Your task to perform on an android device: see sites visited before in the chrome app Image 0: 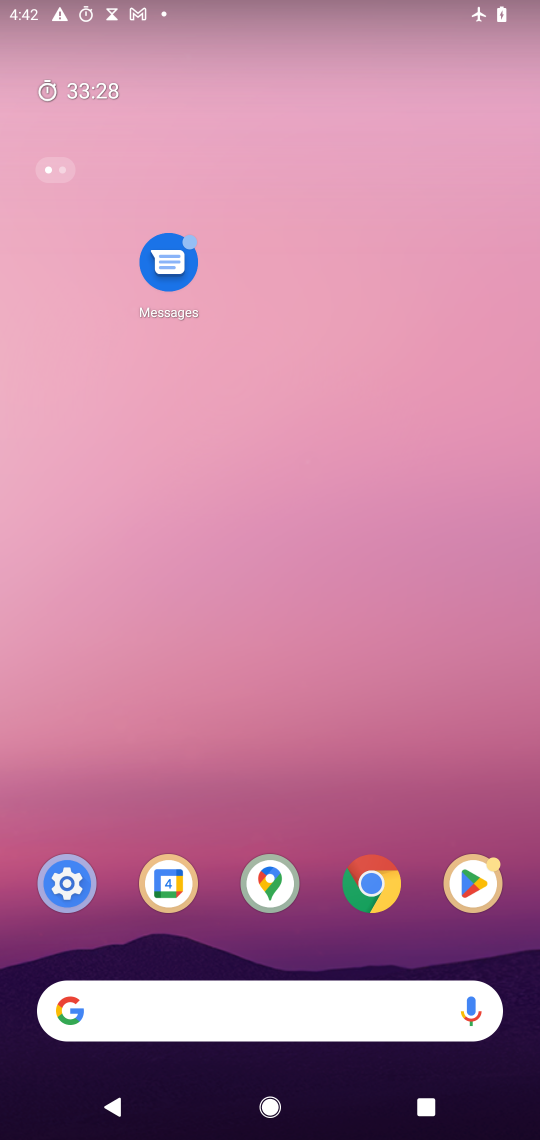
Step 0: click (371, 890)
Your task to perform on an android device: see sites visited before in the chrome app Image 1: 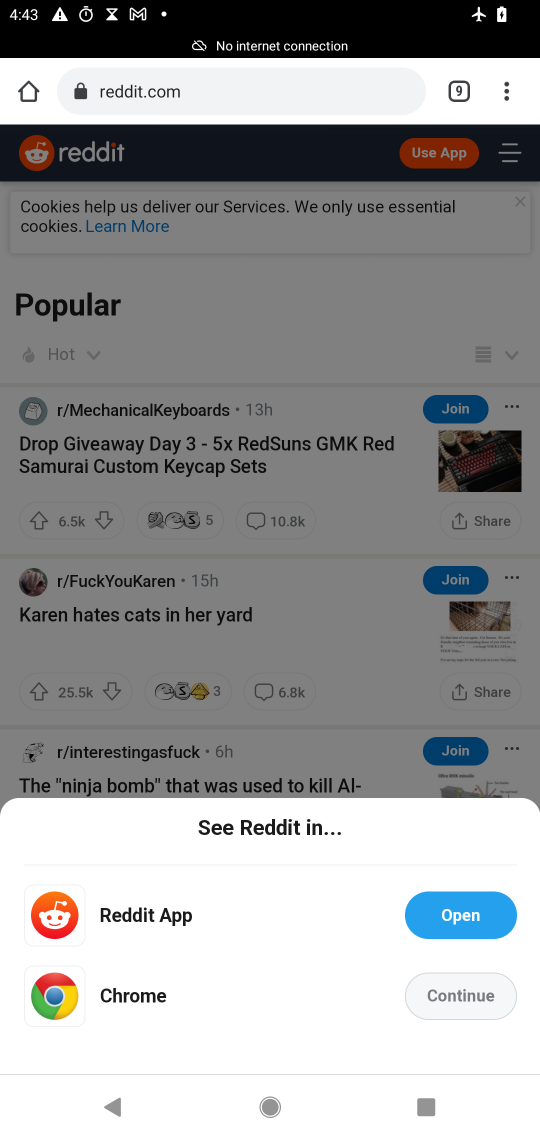
Step 1: click (506, 73)
Your task to perform on an android device: see sites visited before in the chrome app Image 2: 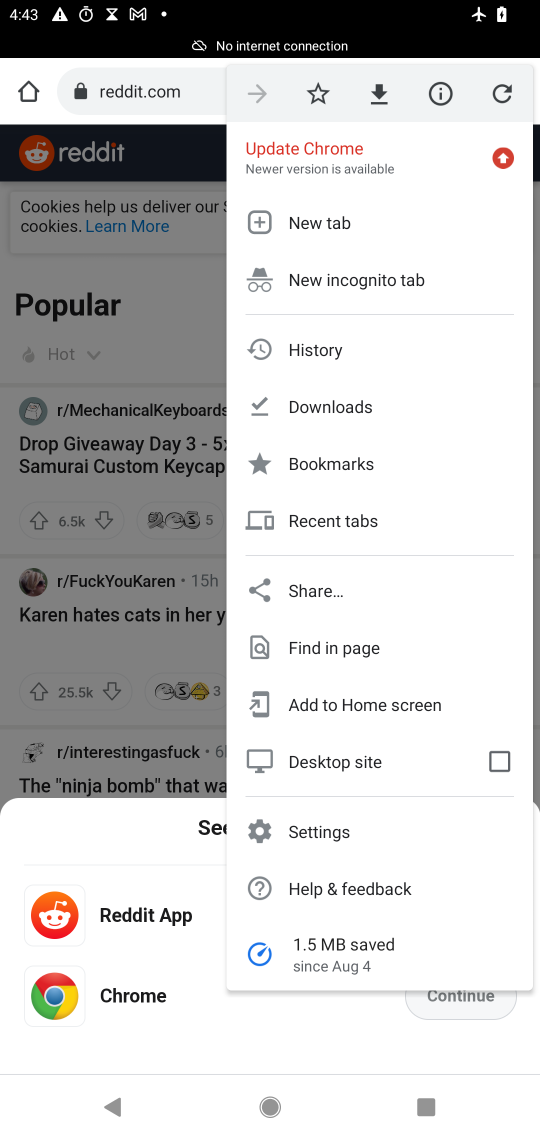
Step 2: click (346, 517)
Your task to perform on an android device: see sites visited before in the chrome app Image 3: 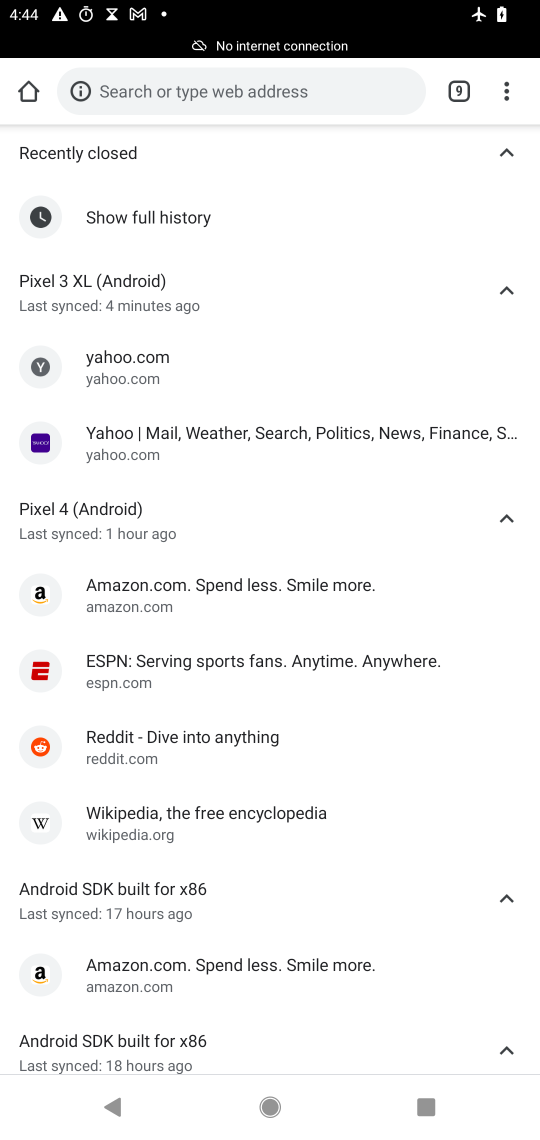
Step 3: task complete